Your task to perform on an android device: Search for the best way to get rid of a cold Image 0: 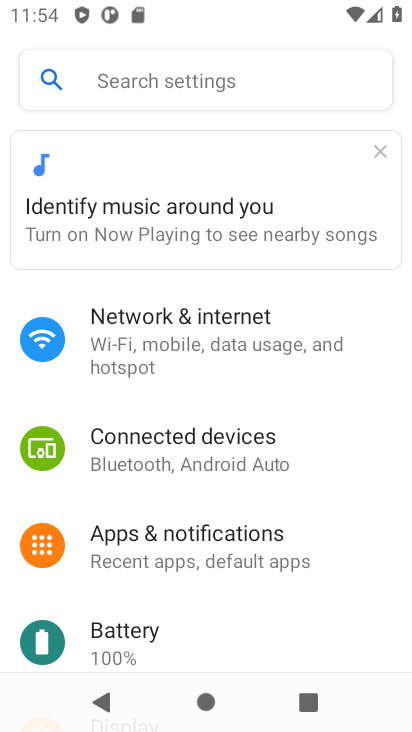
Step 0: press home button
Your task to perform on an android device: Search for the best way to get rid of a cold Image 1: 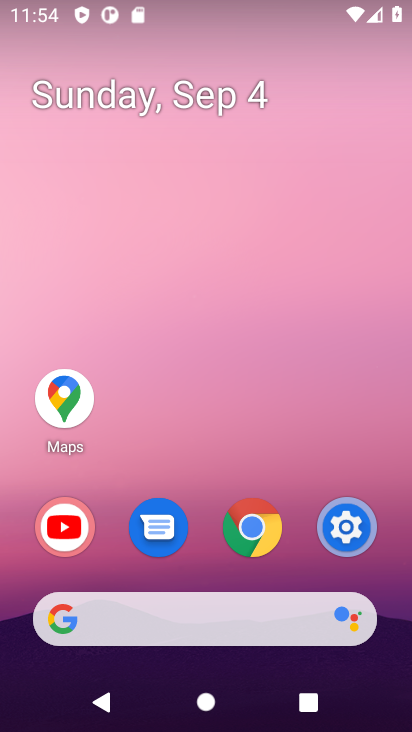
Step 1: click (252, 528)
Your task to perform on an android device: Search for the best way to get rid of a cold Image 2: 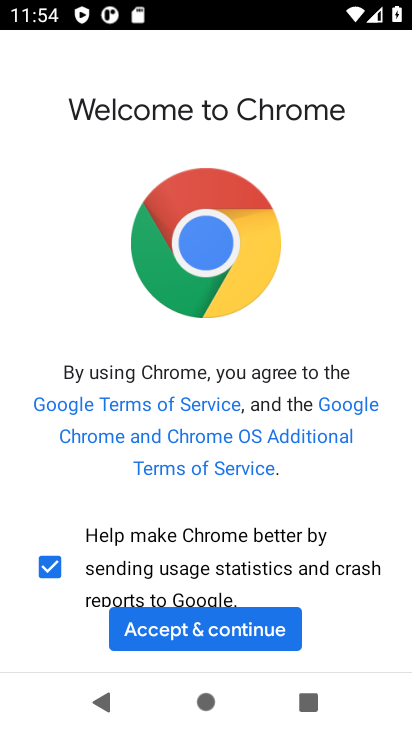
Step 2: click (223, 625)
Your task to perform on an android device: Search for the best way to get rid of a cold Image 3: 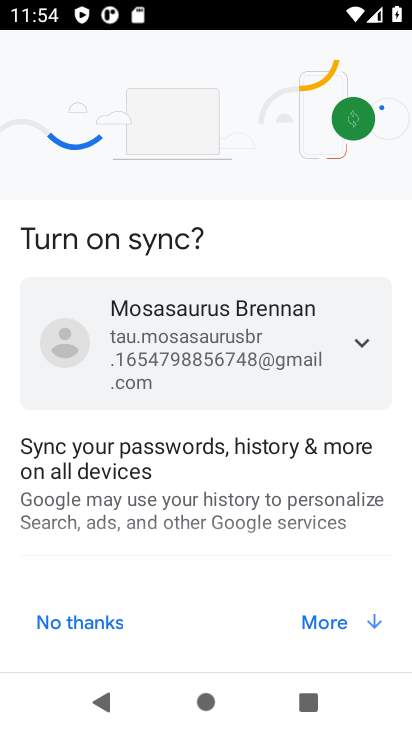
Step 3: click (335, 627)
Your task to perform on an android device: Search for the best way to get rid of a cold Image 4: 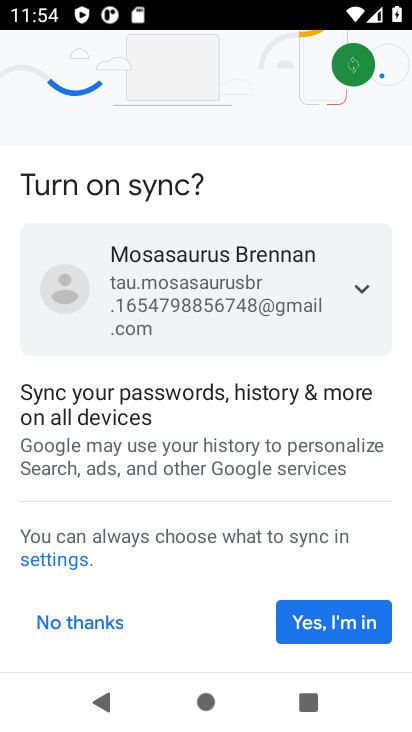
Step 4: click (335, 627)
Your task to perform on an android device: Search for the best way to get rid of a cold Image 5: 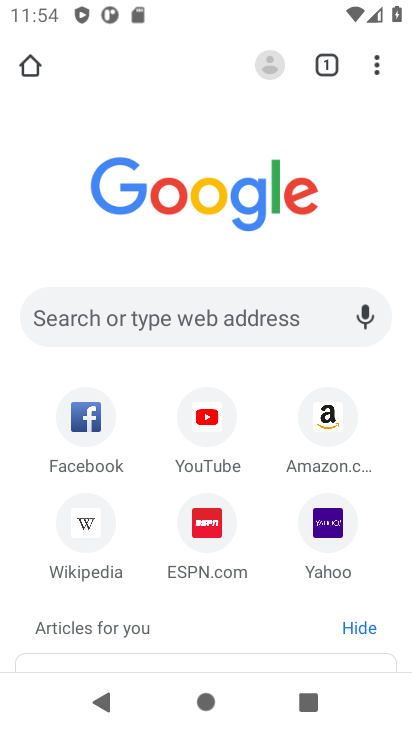
Step 5: click (103, 302)
Your task to perform on an android device: Search for the best way to get rid of a cold Image 6: 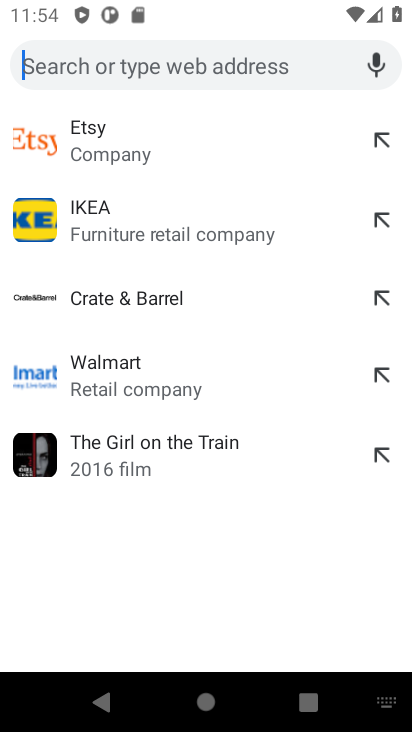
Step 6: type "the best way to get rid of a cold"
Your task to perform on an android device: Search for the best way to get rid of a cold Image 7: 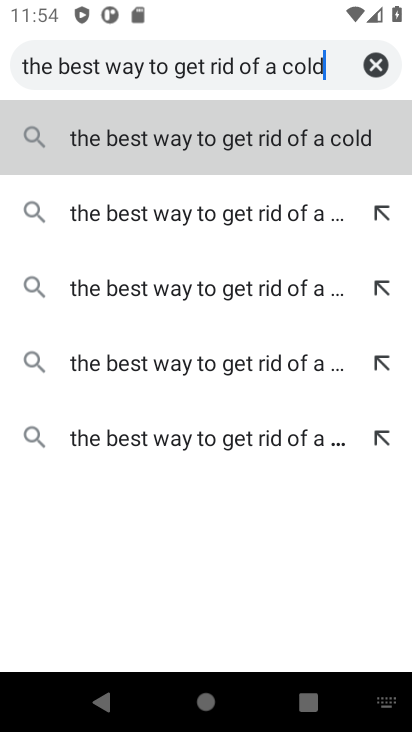
Step 7: click (172, 152)
Your task to perform on an android device: Search for the best way to get rid of a cold Image 8: 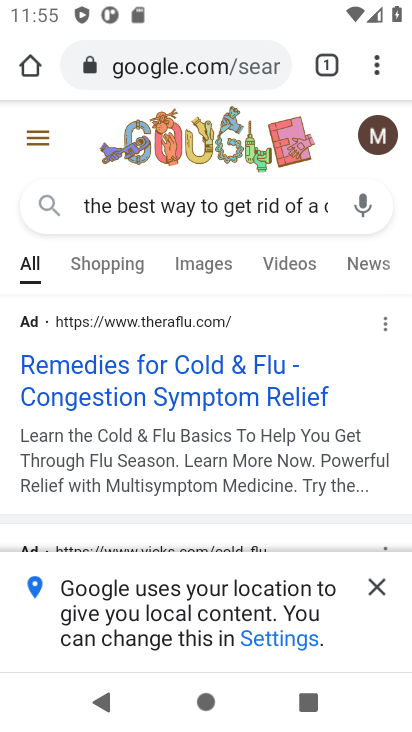
Step 8: task complete